Your task to perform on an android device: turn off location history Image 0: 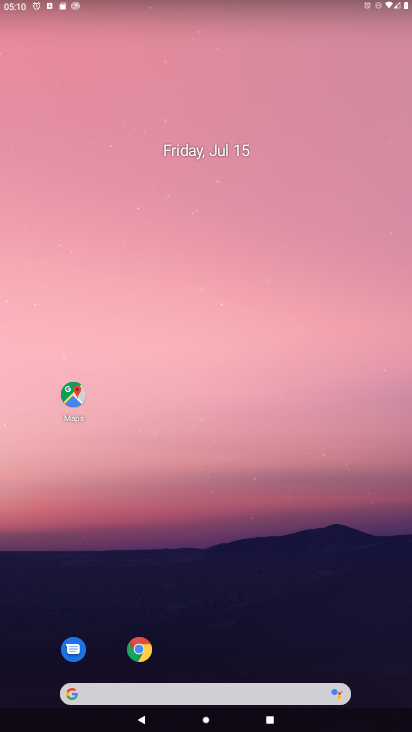
Step 0: click (71, 393)
Your task to perform on an android device: turn off location history Image 1: 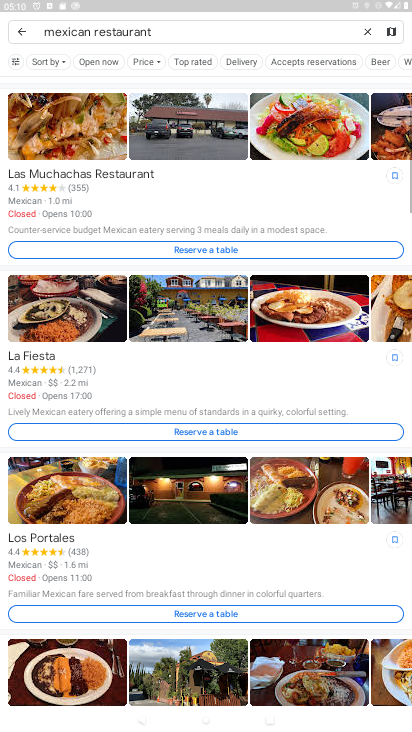
Step 1: click (365, 26)
Your task to perform on an android device: turn off location history Image 2: 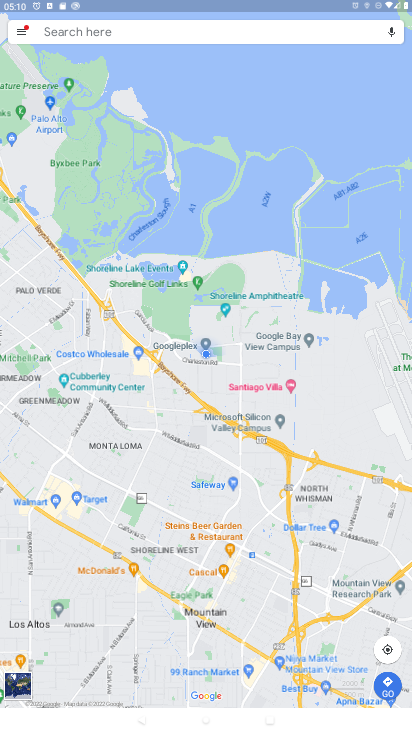
Step 2: click (20, 33)
Your task to perform on an android device: turn off location history Image 3: 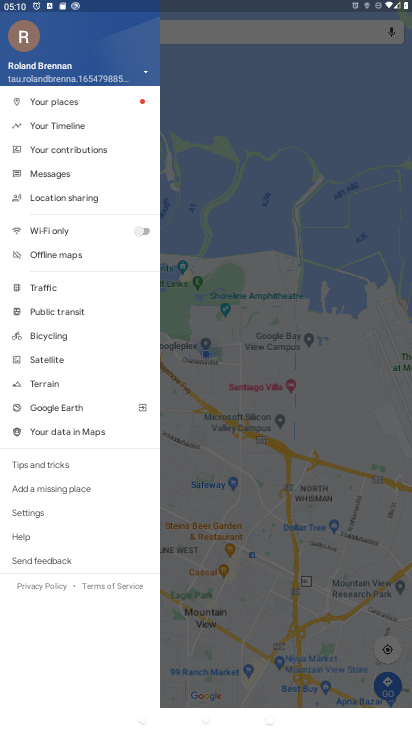
Step 3: click (28, 512)
Your task to perform on an android device: turn off location history Image 4: 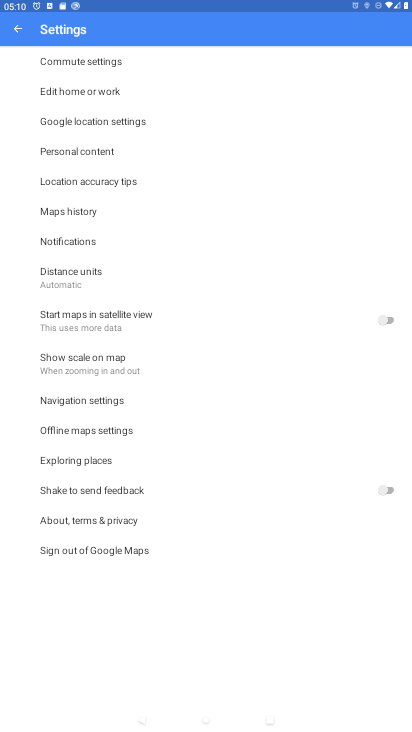
Step 4: click (64, 151)
Your task to perform on an android device: turn off location history Image 5: 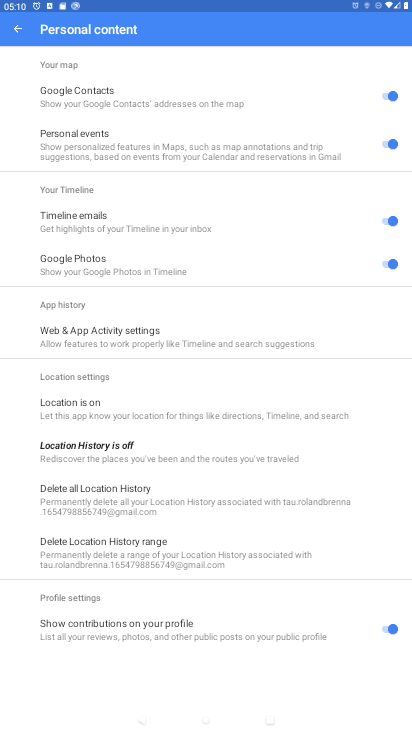
Step 5: task complete